Your task to perform on an android device: Open notification settings Image 0: 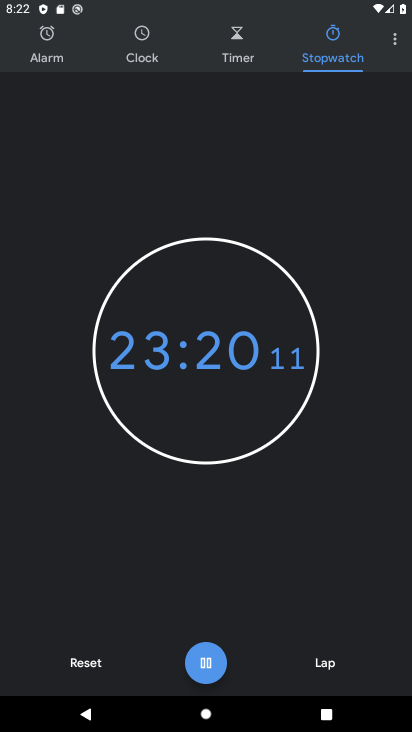
Step 0: press home button
Your task to perform on an android device: Open notification settings Image 1: 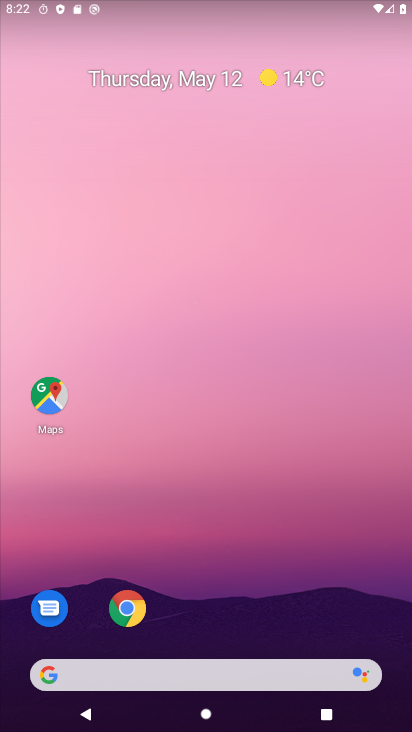
Step 1: drag from (264, 536) to (273, 292)
Your task to perform on an android device: Open notification settings Image 2: 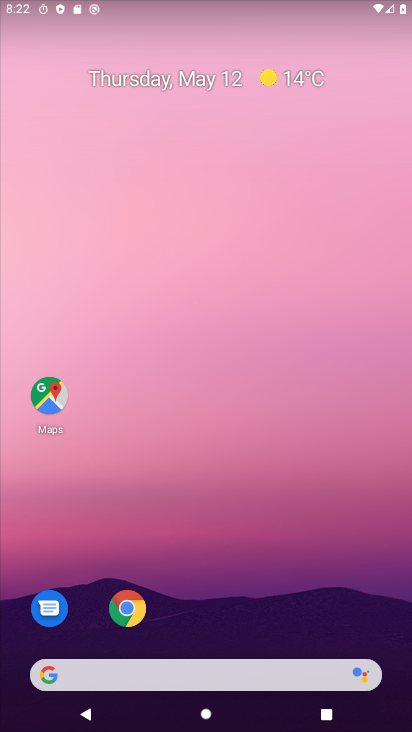
Step 2: drag from (239, 641) to (269, 73)
Your task to perform on an android device: Open notification settings Image 3: 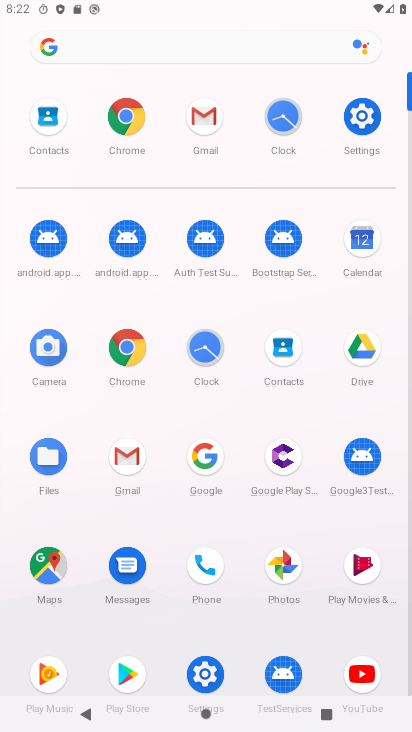
Step 3: click (353, 118)
Your task to perform on an android device: Open notification settings Image 4: 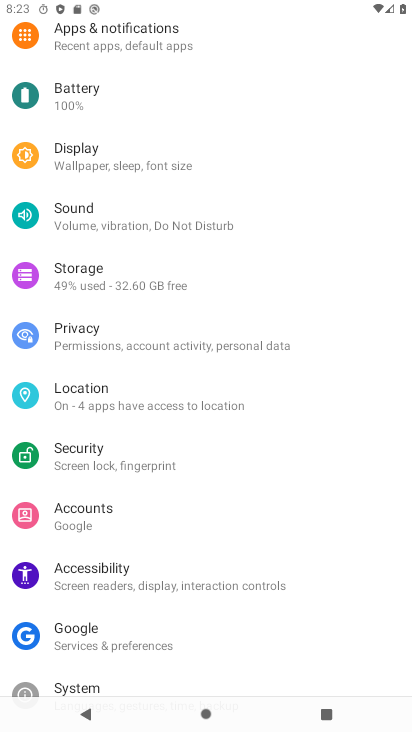
Step 4: drag from (219, 248) to (202, 543)
Your task to perform on an android device: Open notification settings Image 5: 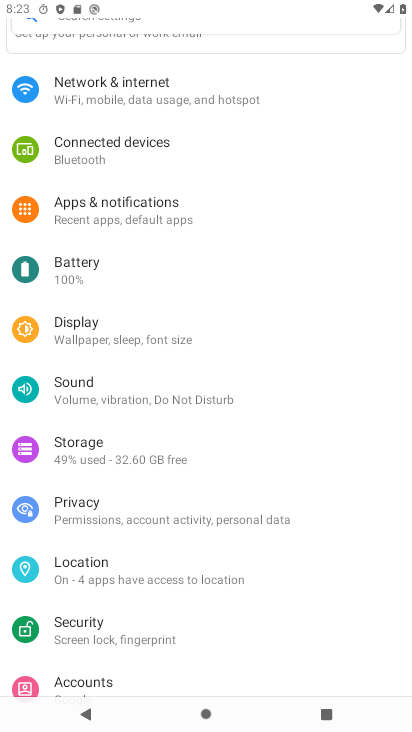
Step 5: click (164, 203)
Your task to perform on an android device: Open notification settings Image 6: 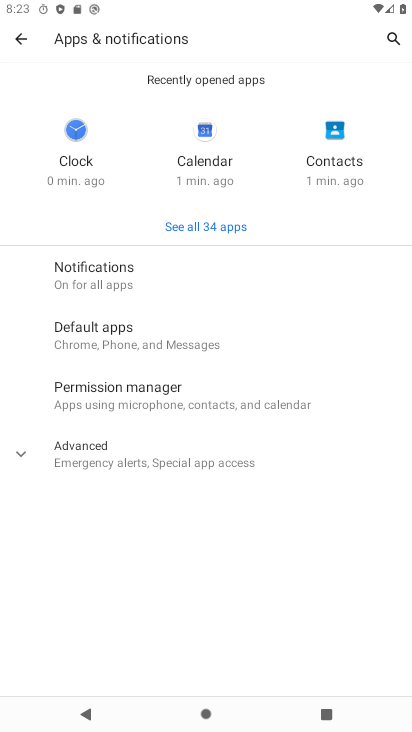
Step 6: click (101, 275)
Your task to perform on an android device: Open notification settings Image 7: 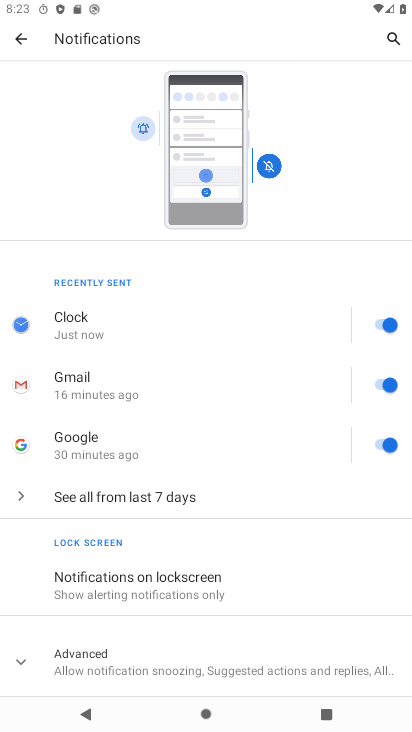
Step 7: task complete